Your task to perform on an android device: see sites visited before in the chrome app Image 0: 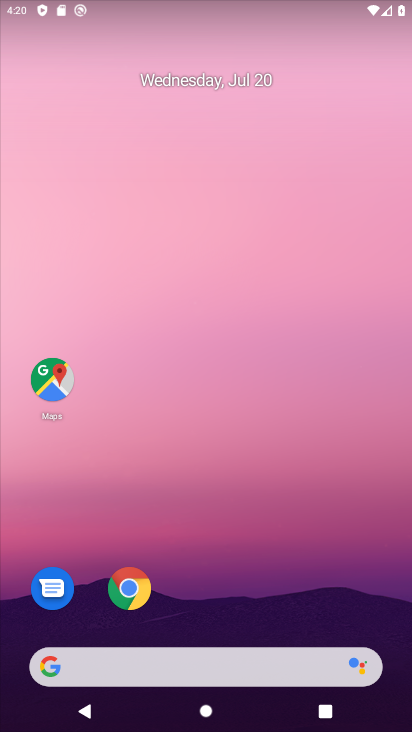
Step 0: click (128, 584)
Your task to perform on an android device: see sites visited before in the chrome app Image 1: 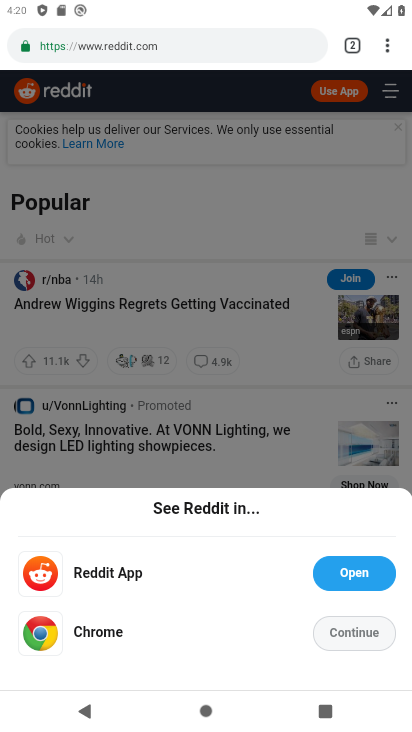
Step 1: click (357, 624)
Your task to perform on an android device: see sites visited before in the chrome app Image 2: 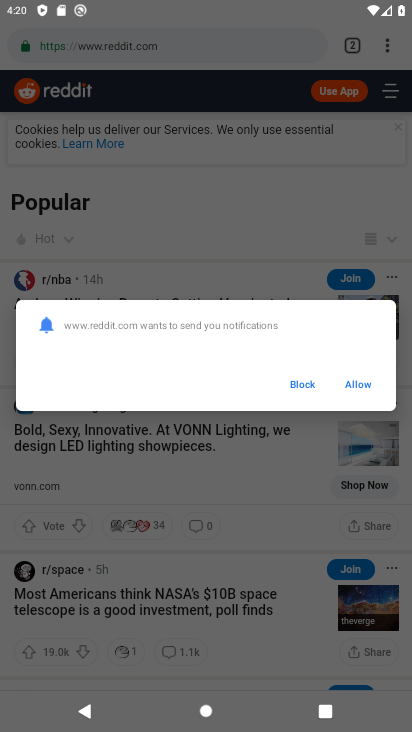
Step 2: click (359, 387)
Your task to perform on an android device: see sites visited before in the chrome app Image 3: 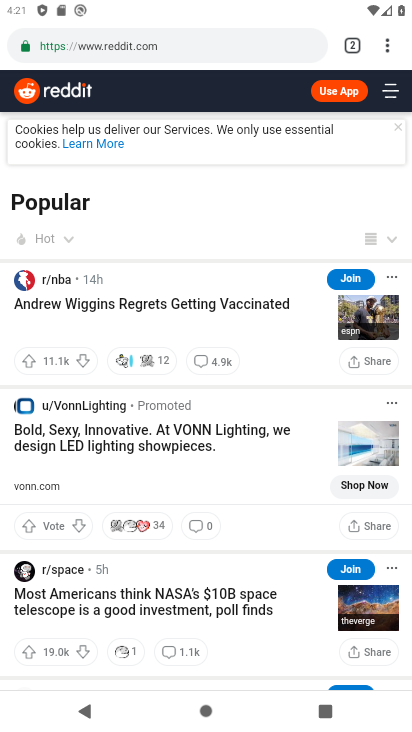
Step 3: click (393, 42)
Your task to perform on an android device: see sites visited before in the chrome app Image 4: 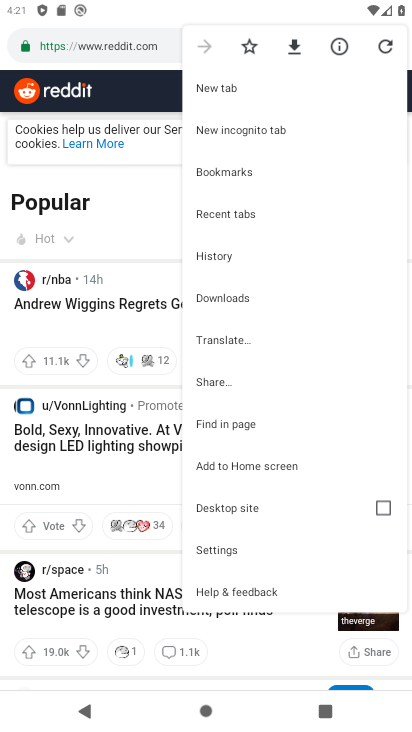
Step 4: click (233, 248)
Your task to perform on an android device: see sites visited before in the chrome app Image 5: 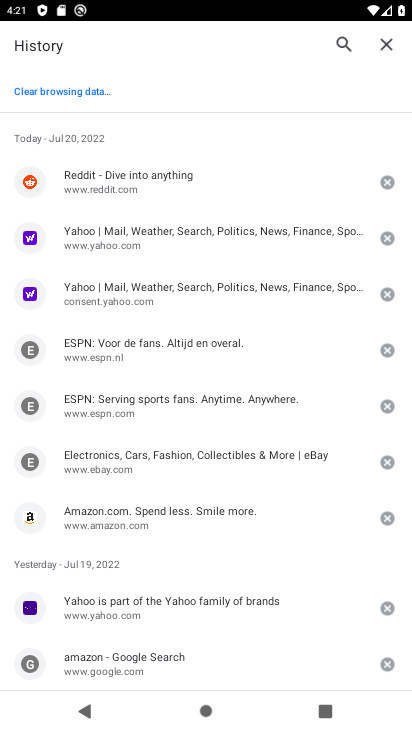
Step 5: task complete